Your task to perform on an android device: star an email in the gmail app Image 0: 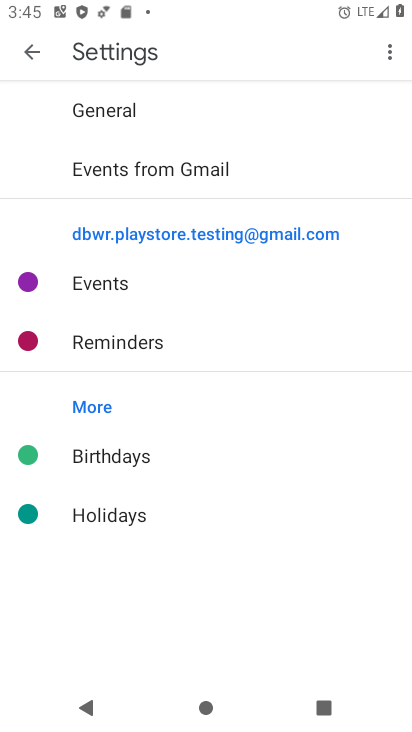
Step 0: press home button
Your task to perform on an android device: star an email in the gmail app Image 1: 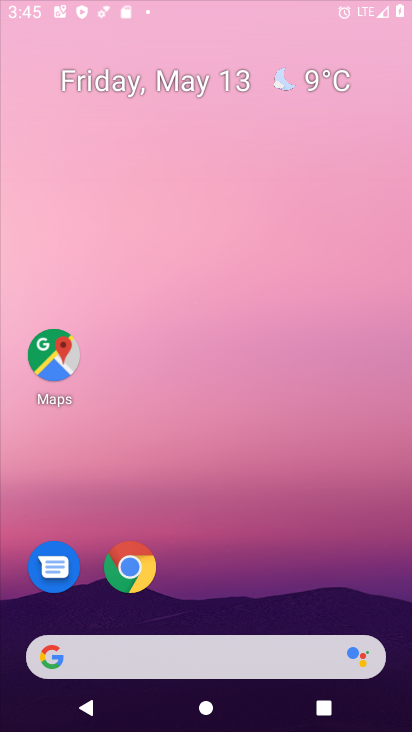
Step 1: drag from (251, 576) to (300, 33)
Your task to perform on an android device: star an email in the gmail app Image 2: 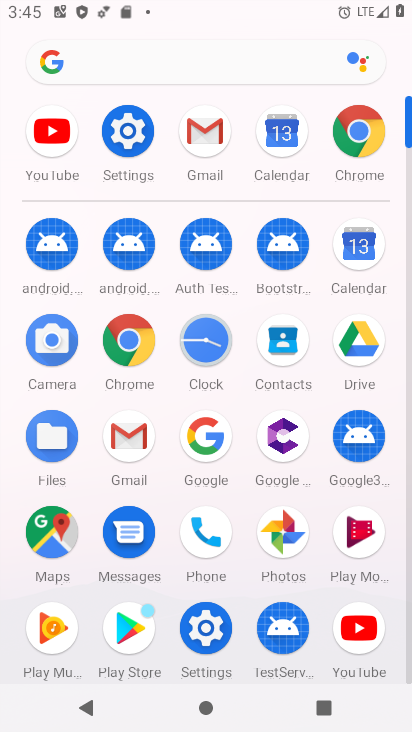
Step 2: click (211, 142)
Your task to perform on an android device: star an email in the gmail app Image 3: 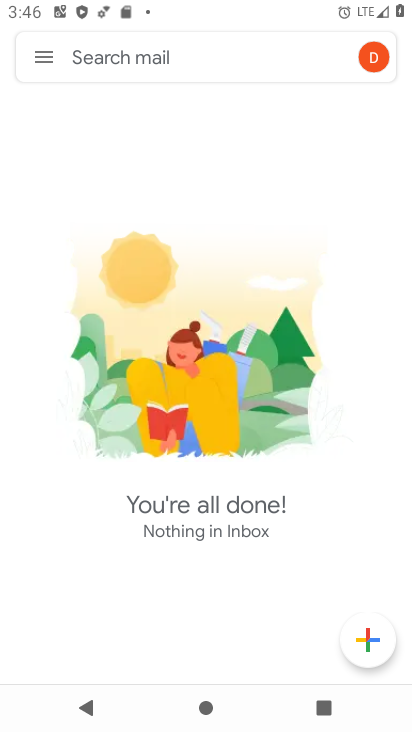
Step 3: click (34, 74)
Your task to perform on an android device: star an email in the gmail app Image 4: 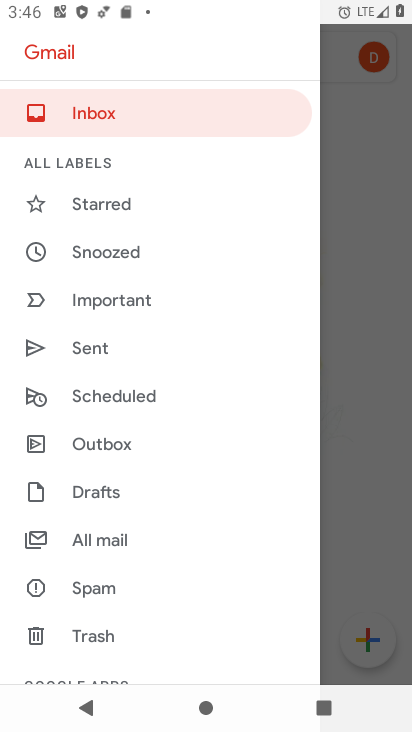
Step 4: click (128, 544)
Your task to perform on an android device: star an email in the gmail app Image 5: 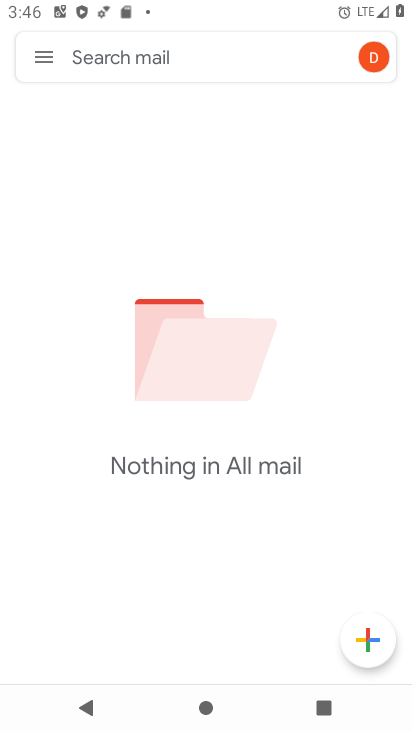
Step 5: task complete